Your task to perform on an android device: remove spam from my inbox in the gmail app Image 0: 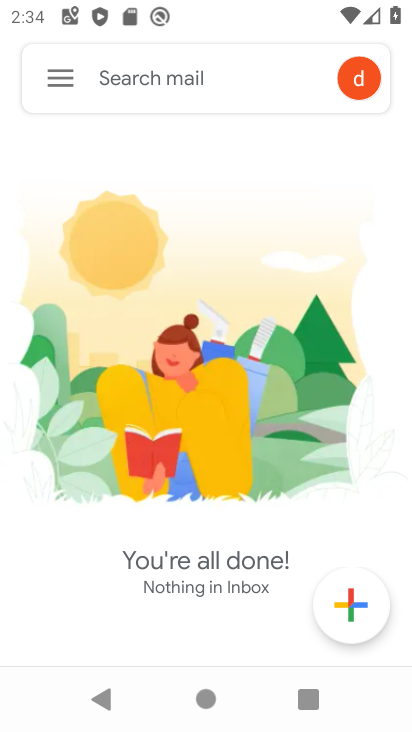
Step 0: click (60, 68)
Your task to perform on an android device: remove spam from my inbox in the gmail app Image 1: 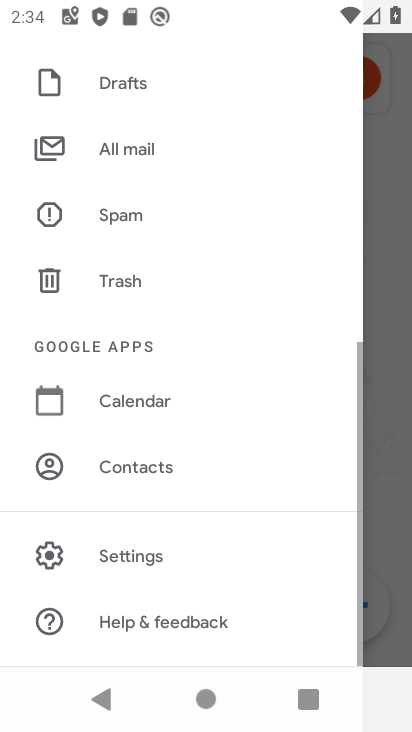
Step 1: drag from (125, 574) to (139, 280)
Your task to perform on an android device: remove spam from my inbox in the gmail app Image 2: 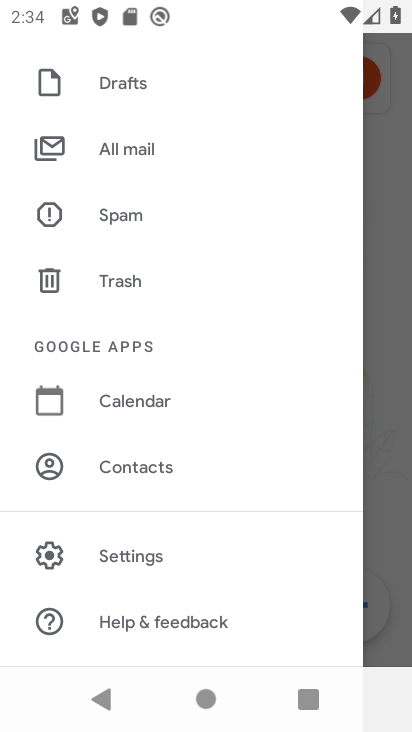
Step 2: click (127, 214)
Your task to perform on an android device: remove spam from my inbox in the gmail app Image 3: 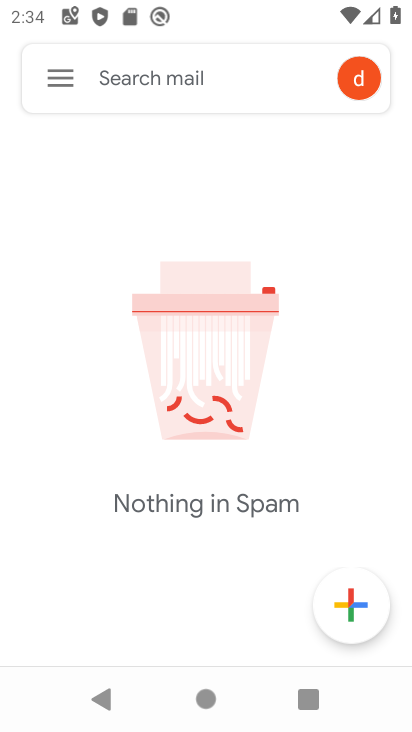
Step 3: task complete